Your task to perform on an android device: open app "Messenger Lite" (install if not already installed), go to login, and select forgot password Image 0: 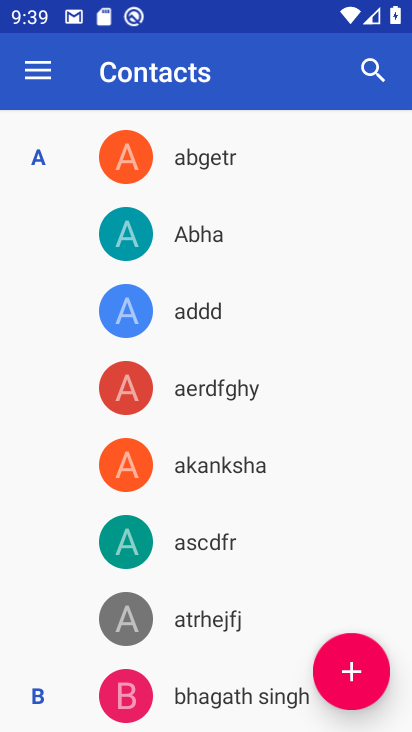
Step 0: press home button
Your task to perform on an android device: open app "Messenger Lite" (install if not already installed), go to login, and select forgot password Image 1: 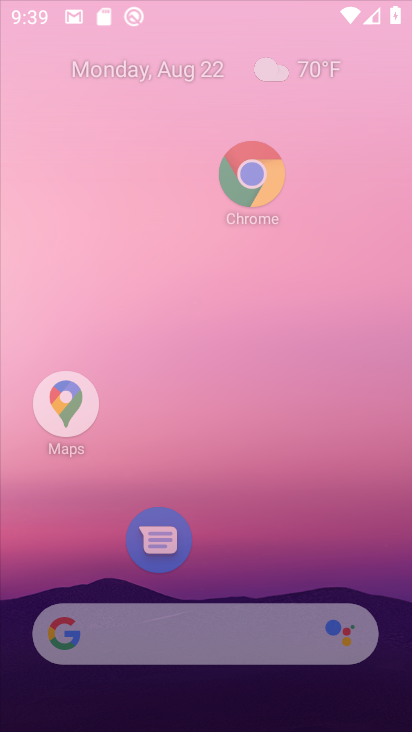
Step 1: drag from (294, 169) to (302, 280)
Your task to perform on an android device: open app "Messenger Lite" (install if not already installed), go to login, and select forgot password Image 2: 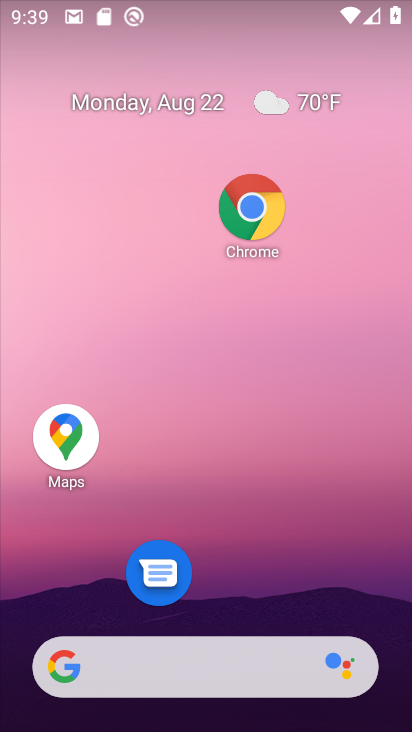
Step 2: drag from (249, 587) to (313, 25)
Your task to perform on an android device: open app "Messenger Lite" (install if not already installed), go to login, and select forgot password Image 3: 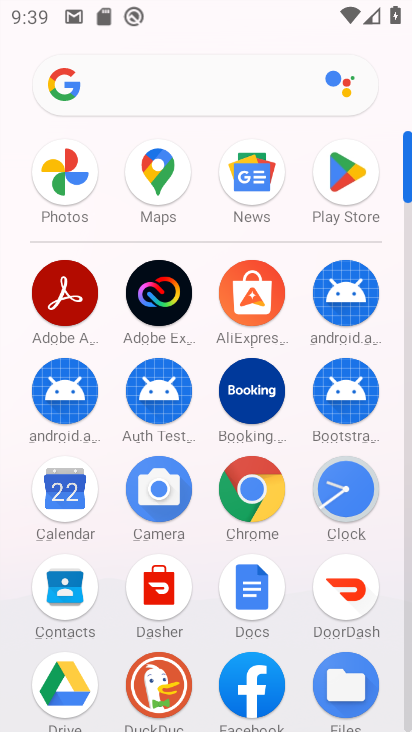
Step 3: click (350, 189)
Your task to perform on an android device: open app "Messenger Lite" (install if not already installed), go to login, and select forgot password Image 4: 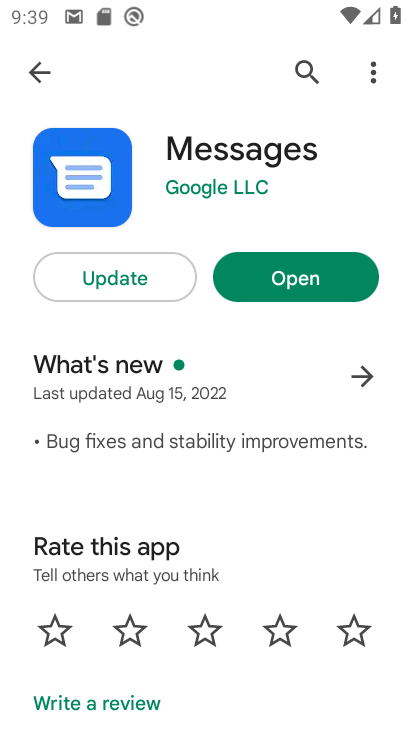
Step 4: click (31, 90)
Your task to perform on an android device: open app "Messenger Lite" (install if not already installed), go to login, and select forgot password Image 5: 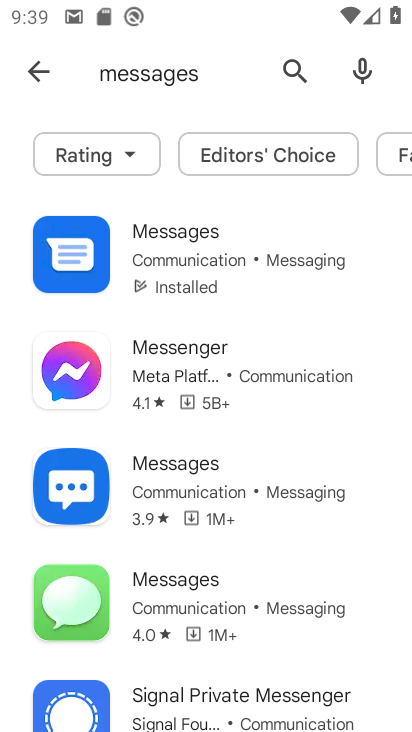
Step 5: click (187, 70)
Your task to perform on an android device: open app "Messenger Lite" (install if not already installed), go to login, and select forgot password Image 6: 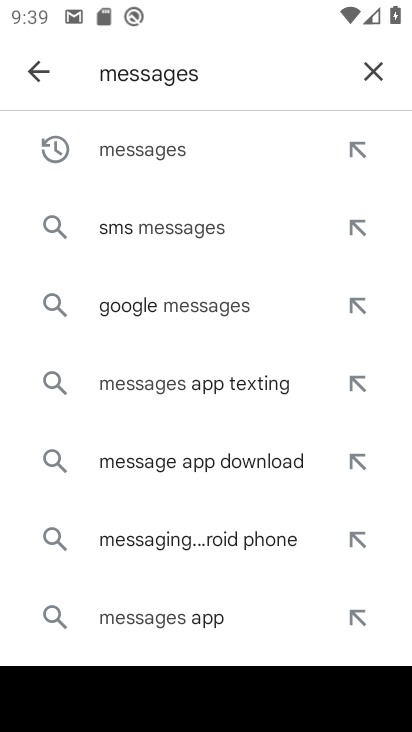
Step 6: click (371, 63)
Your task to perform on an android device: open app "Messenger Lite" (install if not already installed), go to login, and select forgot password Image 7: 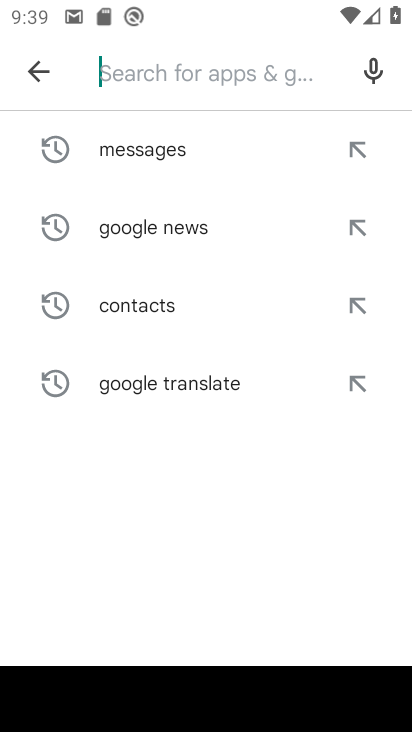
Step 7: type "messenger lite"
Your task to perform on an android device: open app "Messenger Lite" (install if not already installed), go to login, and select forgot password Image 8: 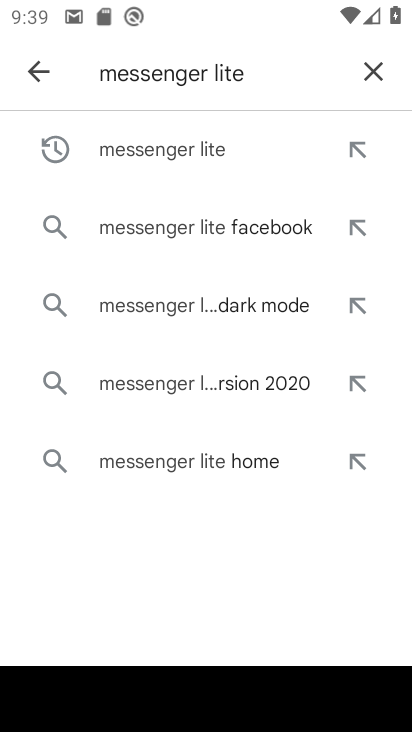
Step 8: click (188, 155)
Your task to perform on an android device: open app "Messenger Lite" (install if not already installed), go to login, and select forgot password Image 9: 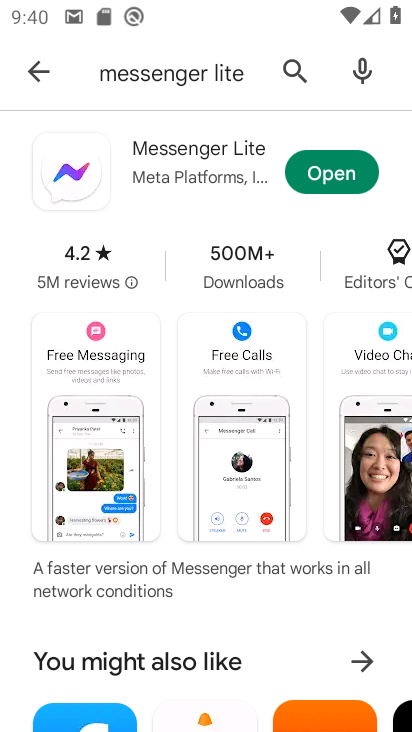
Step 9: click (336, 170)
Your task to perform on an android device: open app "Messenger Lite" (install if not already installed), go to login, and select forgot password Image 10: 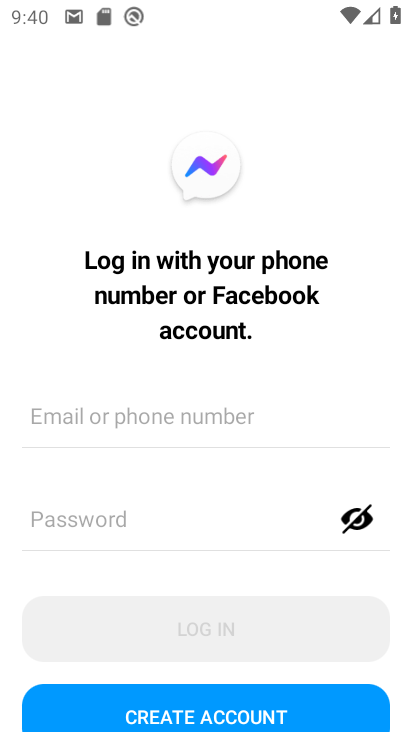
Step 10: drag from (215, 612) to (243, 487)
Your task to perform on an android device: open app "Messenger Lite" (install if not already installed), go to login, and select forgot password Image 11: 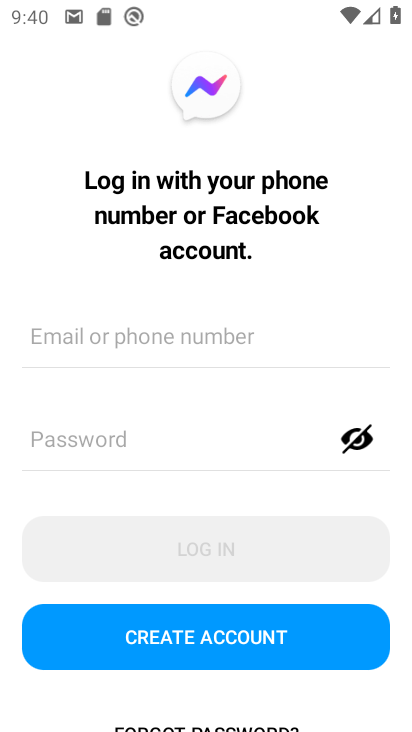
Step 11: drag from (247, 580) to (308, 220)
Your task to perform on an android device: open app "Messenger Lite" (install if not already installed), go to login, and select forgot password Image 12: 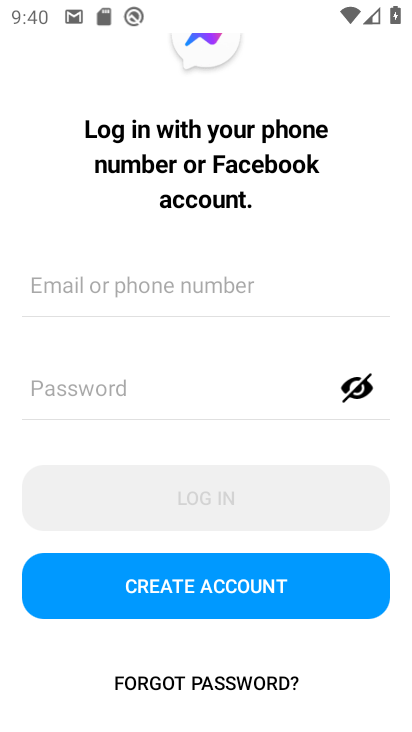
Step 12: click (234, 681)
Your task to perform on an android device: open app "Messenger Lite" (install if not already installed), go to login, and select forgot password Image 13: 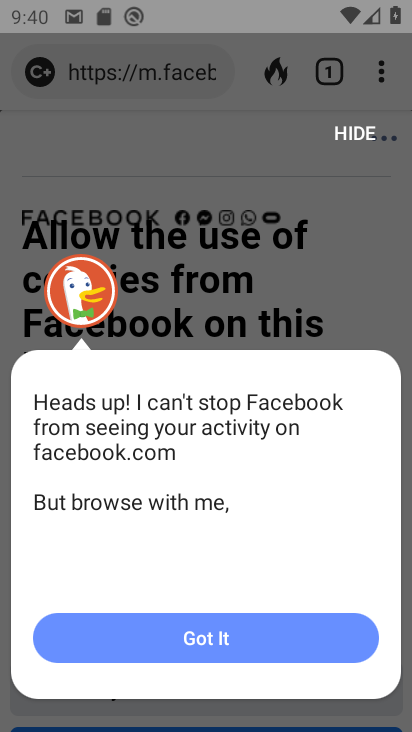
Step 13: task complete